Your task to perform on an android device: see sites visited before in the chrome app Image 0: 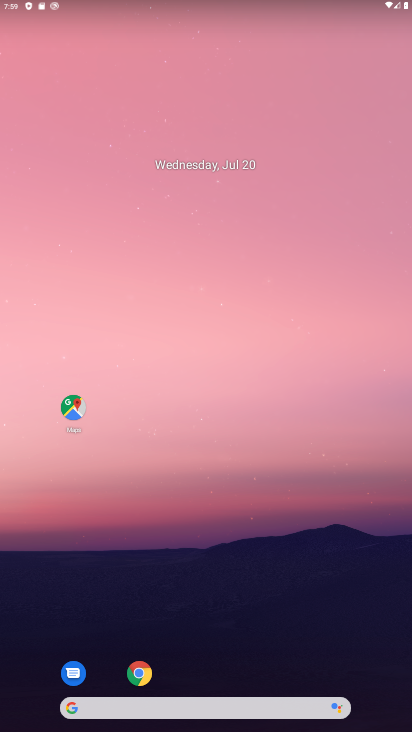
Step 0: drag from (182, 668) to (263, 48)
Your task to perform on an android device: see sites visited before in the chrome app Image 1: 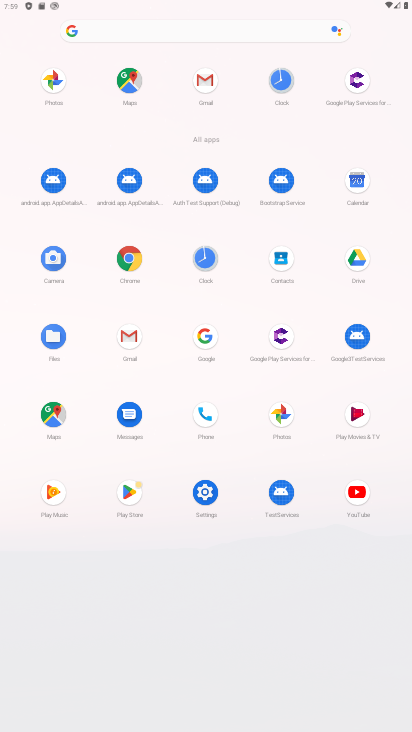
Step 1: click (126, 261)
Your task to perform on an android device: see sites visited before in the chrome app Image 2: 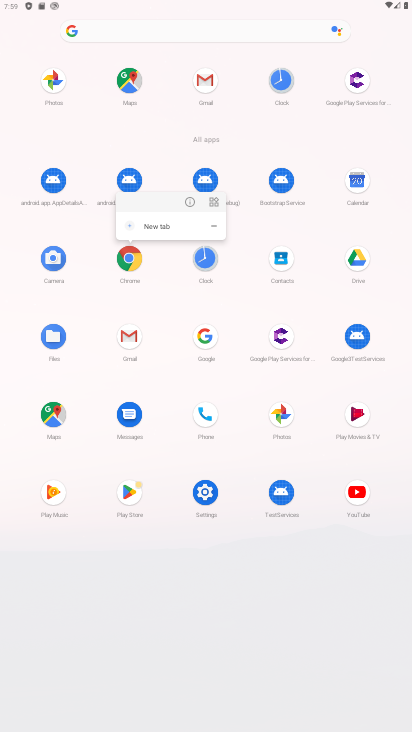
Step 2: click (187, 196)
Your task to perform on an android device: see sites visited before in the chrome app Image 3: 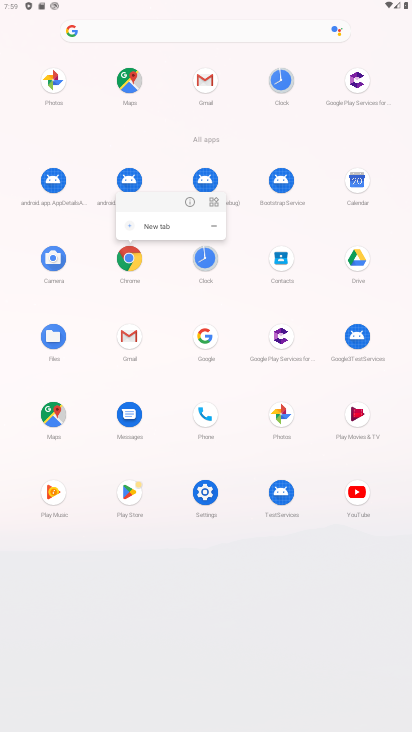
Step 3: click (187, 196)
Your task to perform on an android device: see sites visited before in the chrome app Image 4: 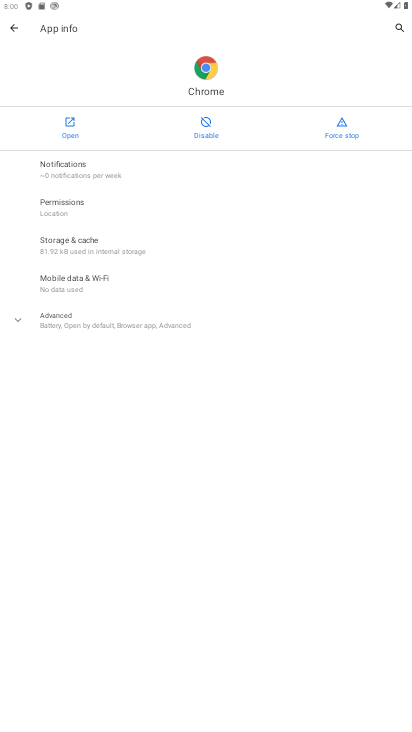
Step 4: click (62, 126)
Your task to perform on an android device: see sites visited before in the chrome app Image 5: 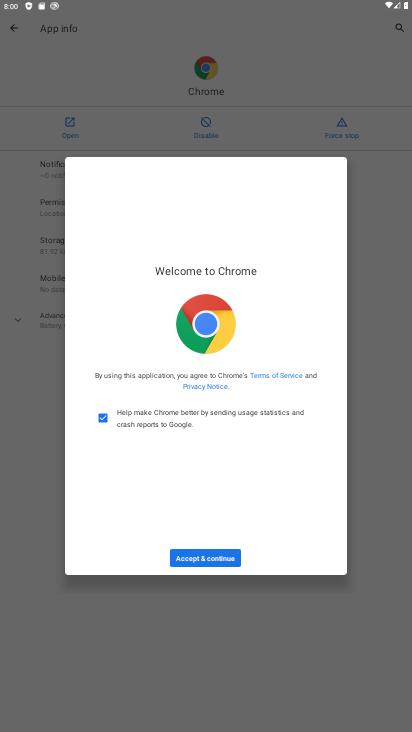
Step 5: click (189, 558)
Your task to perform on an android device: see sites visited before in the chrome app Image 6: 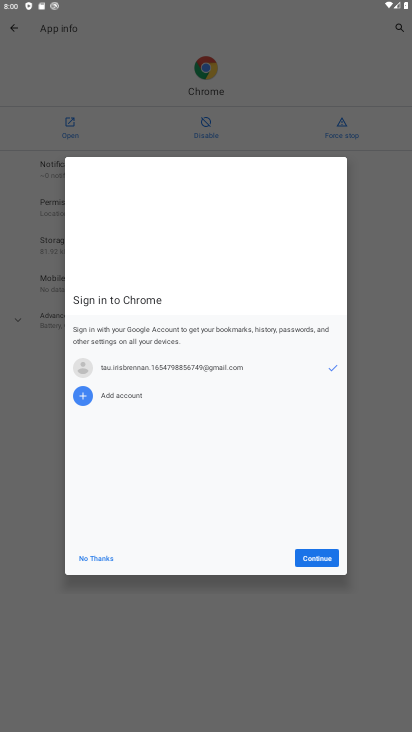
Step 6: click (314, 548)
Your task to perform on an android device: see sites visited before in the chrome app Image 7: 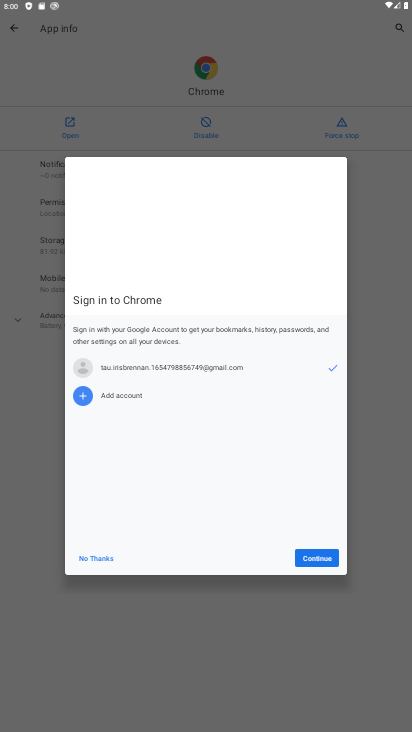
Step 7: click (321, 555)
Your task to perform on an android device: see sites visited before in the chrome app Image 8: 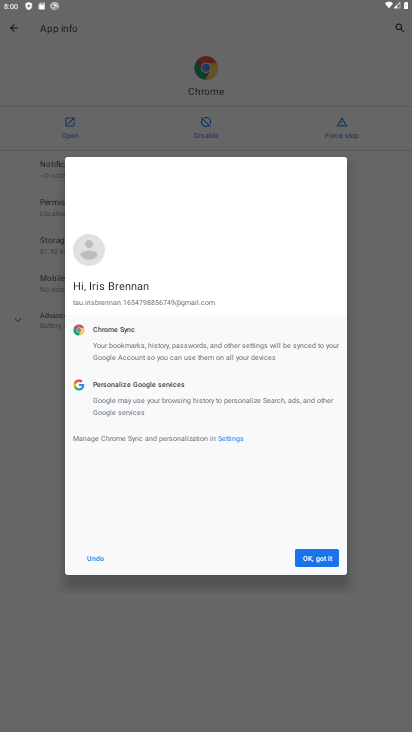
Step 8: click (310, 553)
Your task to perform on an android device: see sites visited before in the chrome app Image 9: 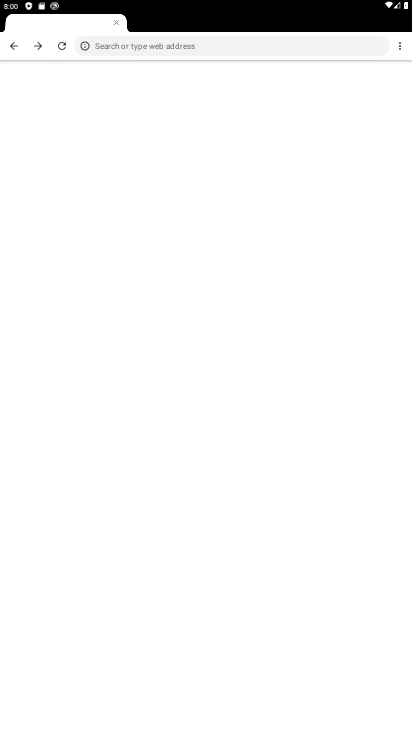
Step 9: task complete